Your task to perform on an android device: turn off improve location accuracy Image 0: 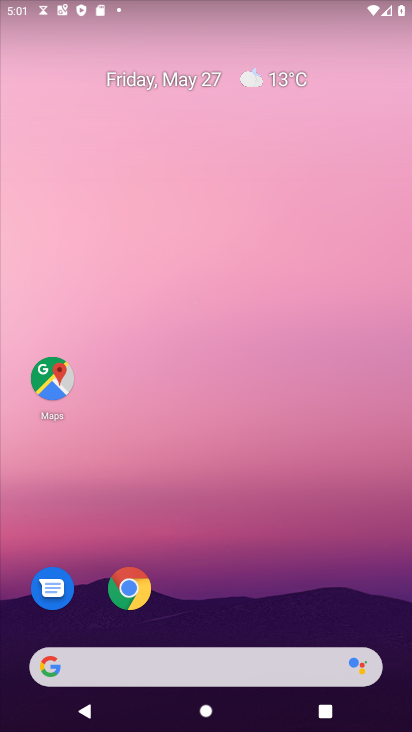
Step 0: drag from (217, 602) to (272, 76)
Your task to perform on an android device: turn off improve location accuracy Image 1: 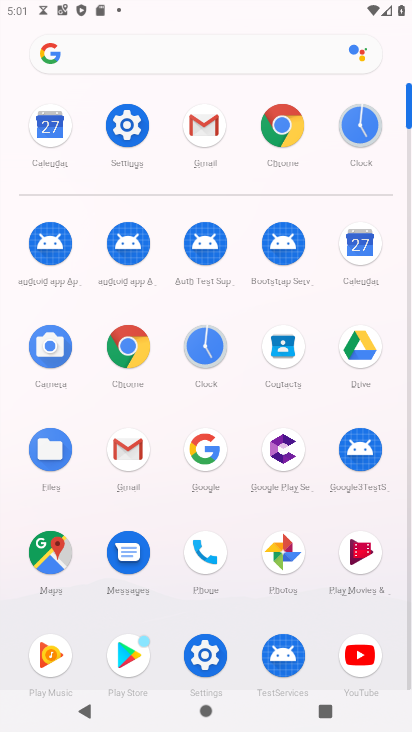
Step 1: click (126, 129)
Your task to perform on an android device: turn off improve location accuracy Image 2: 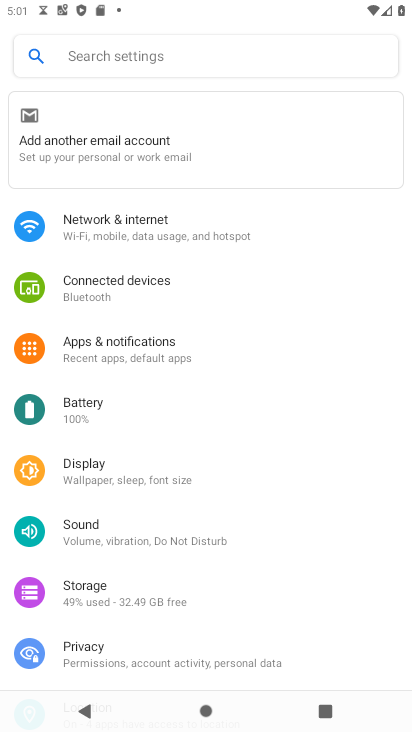
Step 2: drag from (126, 647) to (200, 226)
Your task to perform on an android device: turn off improve location accuracy Image 3: 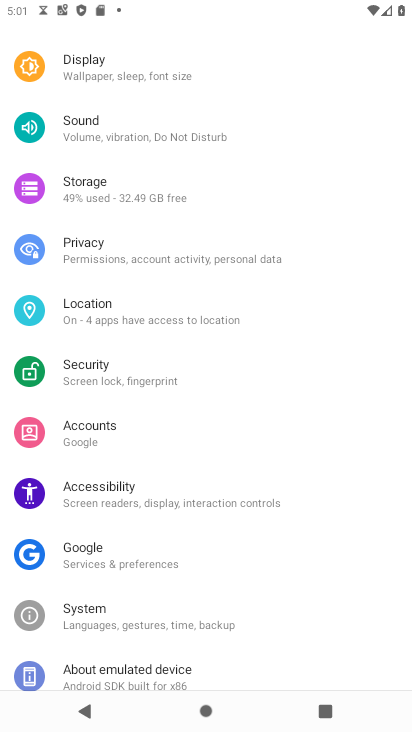
Step 3: click (133, 312)
Your task to perform on an android device: turn off improve location accuracy Image 4: 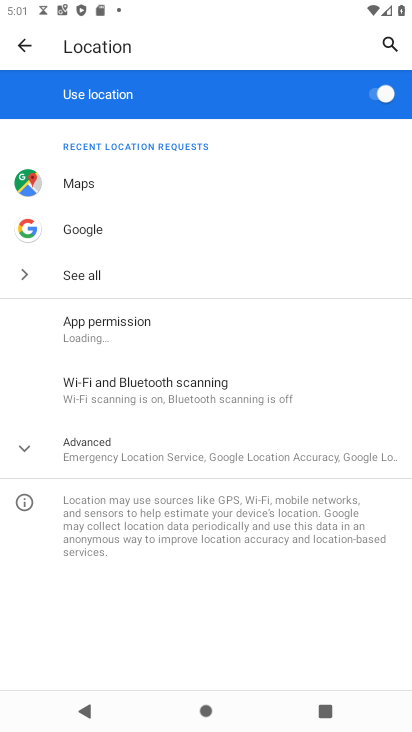
Step 4: click (151, 452)
Your task to perform on an android device: turn off improve location accuracy Image 5: 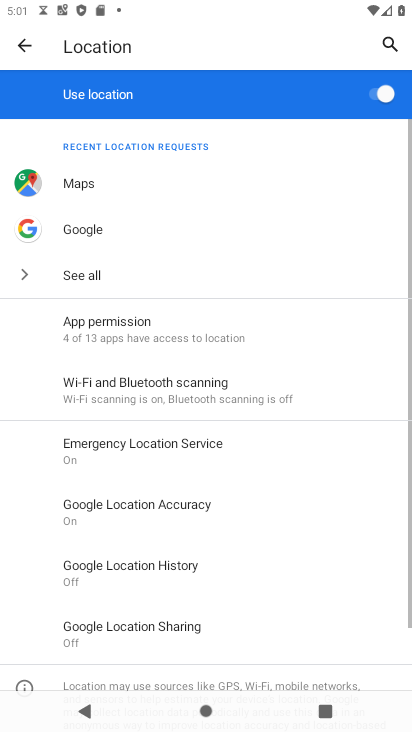
Step 5: click (153, 508)
Your task to perform on an android device: turn off improve location accuracy Image 6: 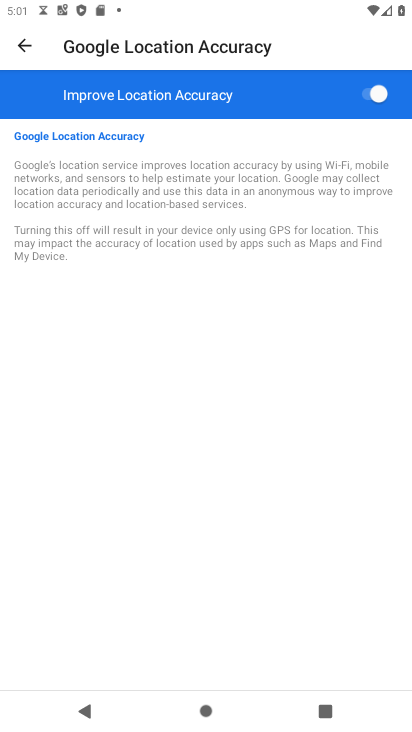
Step 6: click (370, 89)
Your task to perform on an android device: turn off improve location accuracy Image 7: 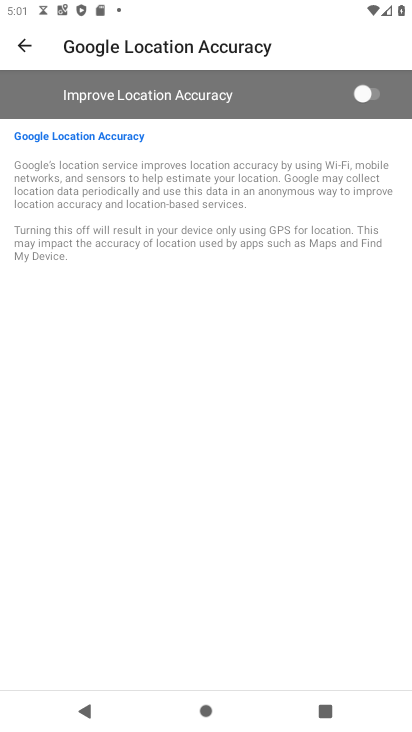
Step 7: task complete